Your task to perform on an android device: Search for pizza restaurants on Maps Image 0: 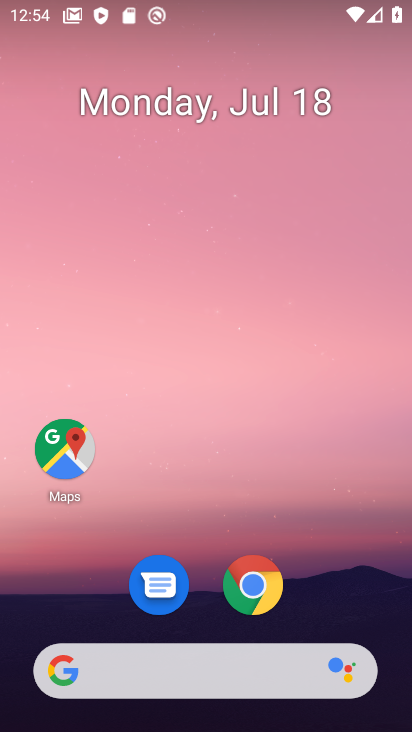
Step 0: press home button
Your task to perform on an android device: Search for pizza restaurants on Maps Image 1: 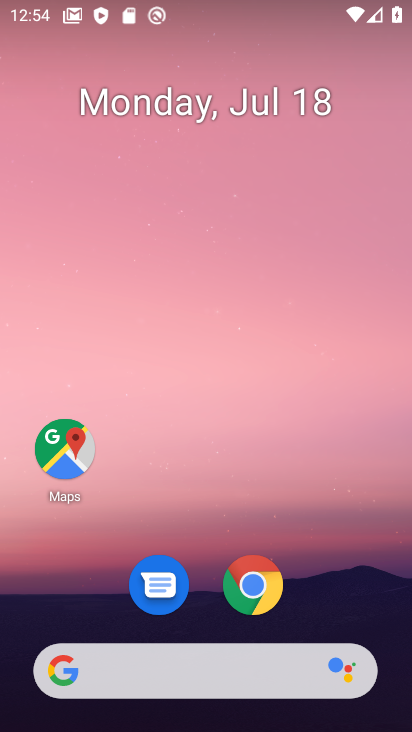
Step 1: click (54, 455)
Your task to perform on an android device: Search for pizza restaurants on Maps Image 2: 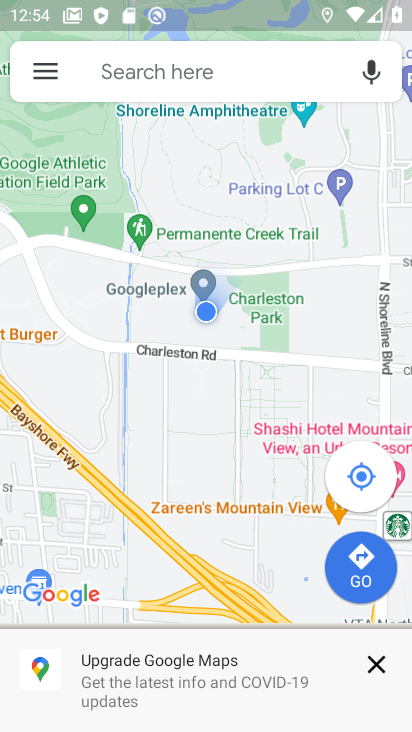
Step 2: click (163, 79)
Your task to perform on an android device: Search for pizza restaurants on Maps Image 3: 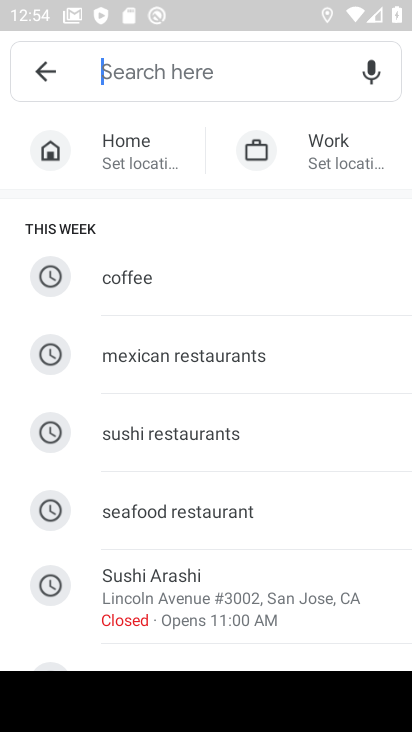
Step 3: drag from (259, 553) to (297, 256)
Your task to perform on an android device: Search for pizza restaurants on Maps Image 4: 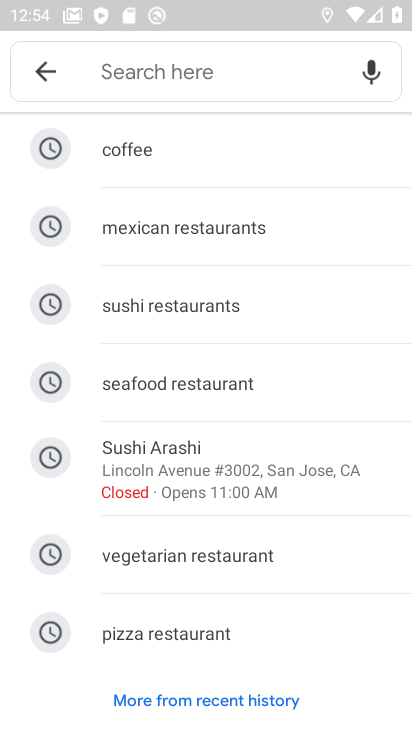
Step 4: click (174, 631)
Your task to perform on an android device: Search for pizza restaurants on Maps Image 5: 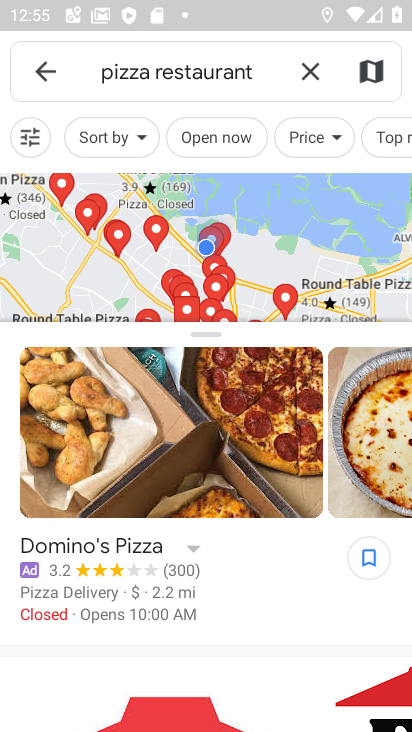
Step 5: task complete